Your task to perform on an android device: turn off data saver in the chrome app Image 0: 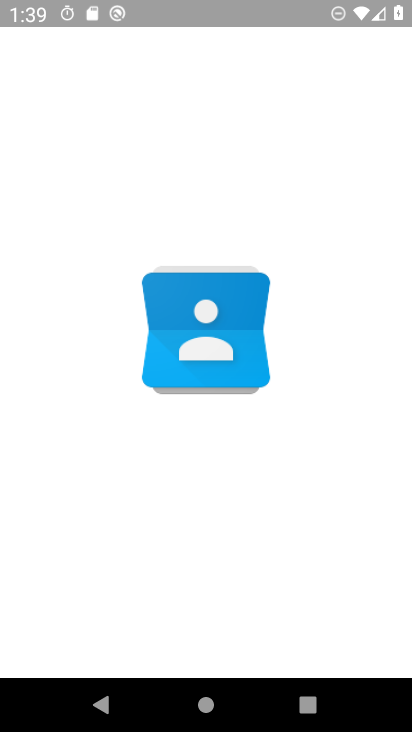
Step 0: drag from (234, 605) to (203, 80)
Your task to perform on an android device: turn off data saver in the chrome app Image 1: 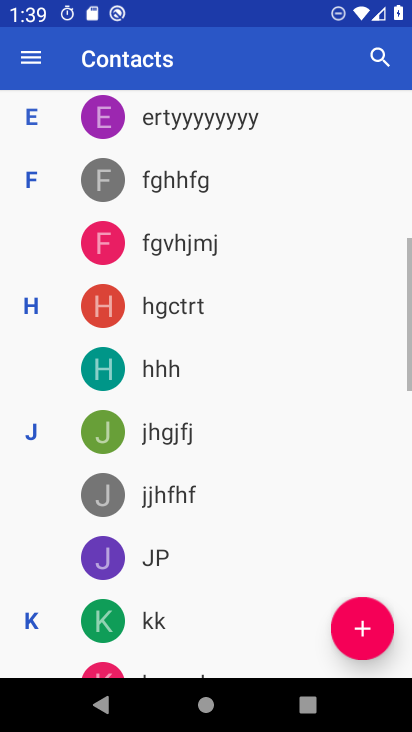
Step 1: press home button
Your task to perform on an android device: turn off data saver in the chrome app Image 2: 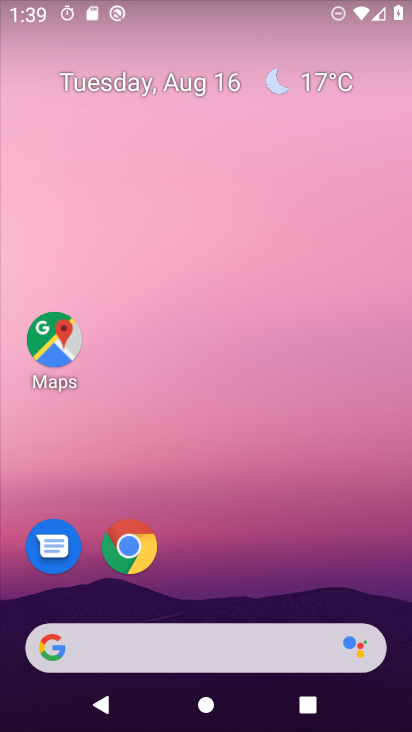
Step 2: click (123, 549)
Your task to perform on an android device: turn off data saver in the chrome app Image 3: 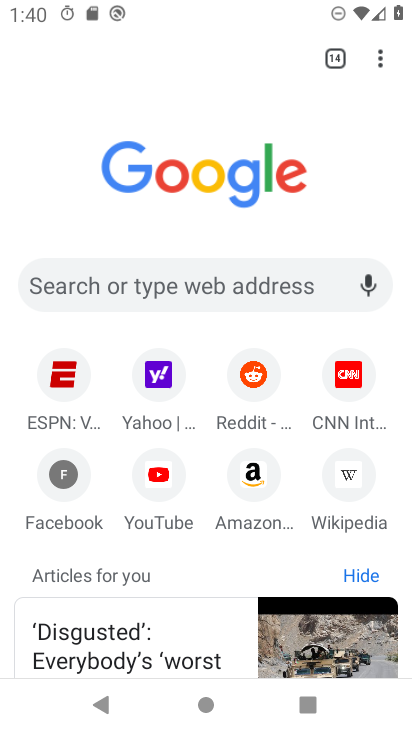
Step 3: click (378, 64)
Your task to perform on an android device: turn off data saver in the chrome app Image 4: 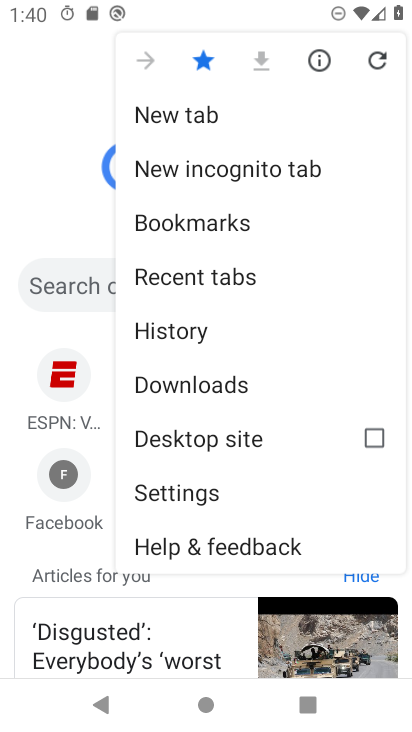
Step 4: click (156, 489)
Your task to perform on an android device: turn off data saver in the chrome app Image 5: 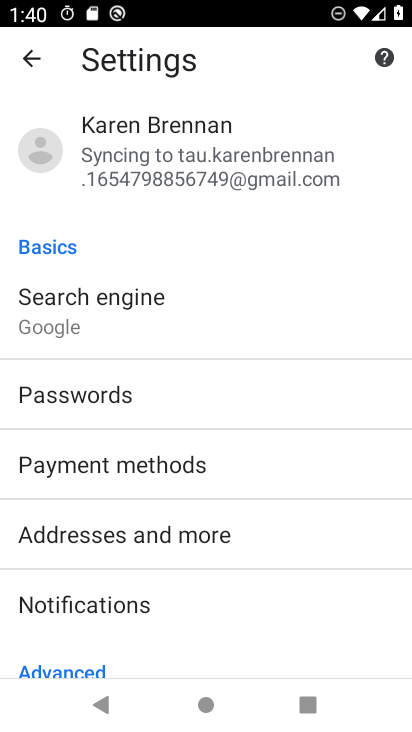
Step 5: drag from (75, 645) to (77, 278)
Your task to perform on an android device: turn off data saver in the chrome app Image 6: 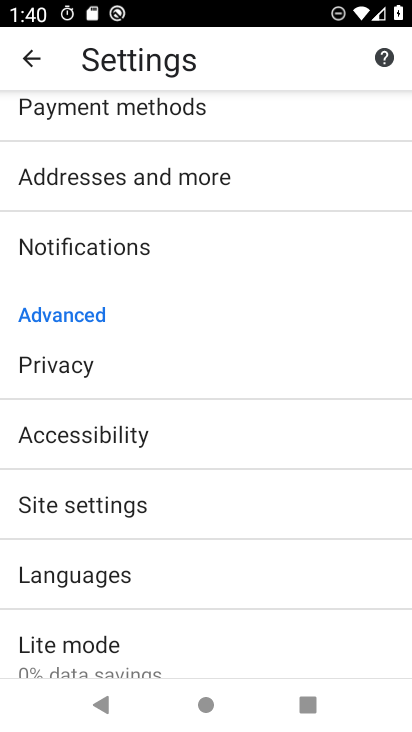
Step 6: click (77, 642)
Your task to perform on an android device: turn off data saver in the chrome app Image 7: 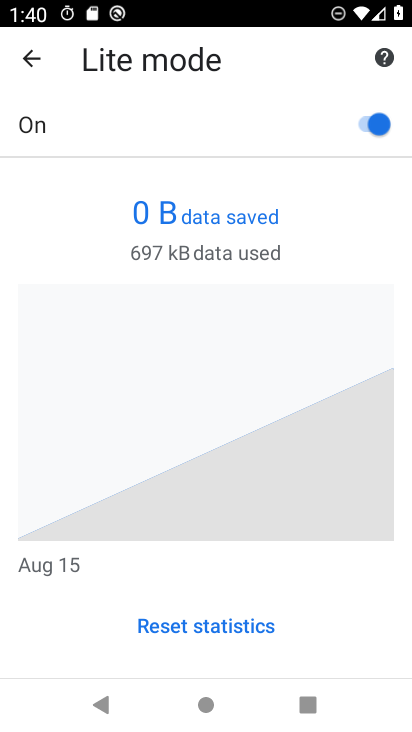
Step 7: click (363, 121)
Your task to perform on an android device: turn off data saver in the chrome app Image 8: 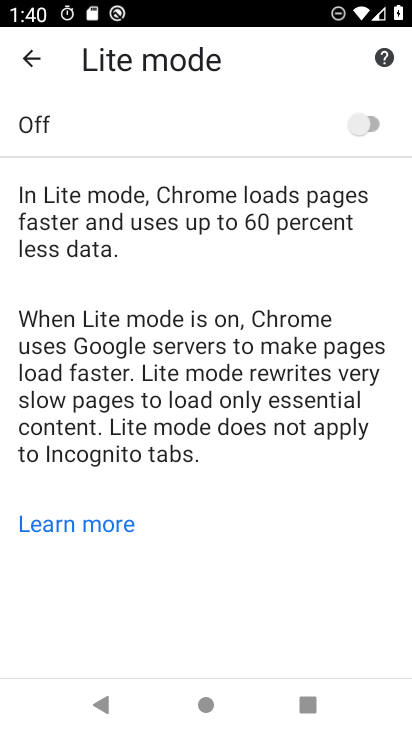
Step 8: task complete